Your task to perform on an android device: turn off javascript in the chrome app Image 0: 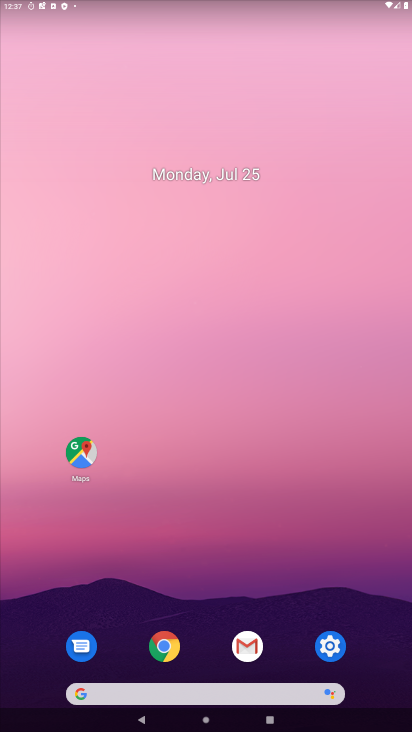
Step 0: click (168, 644)
Your task to perform on an android device: turn off javascript in the chrome app Image 1: 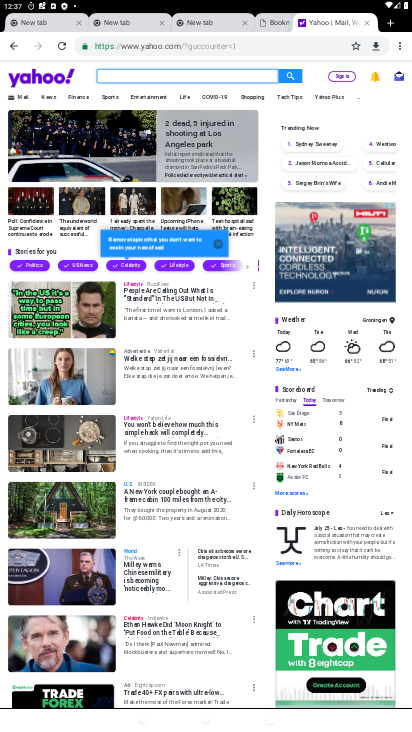
Step 1: click (395, 54)
Your task to perform on an android device: turn off javascript in the chrome app Image 2: 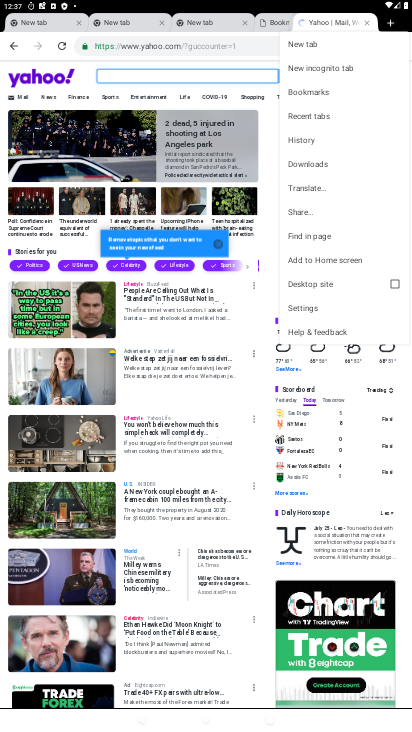
Step 2: click (300, 304)
Your task to perform on an android device: turn off javascript in the chrome app Image 3: 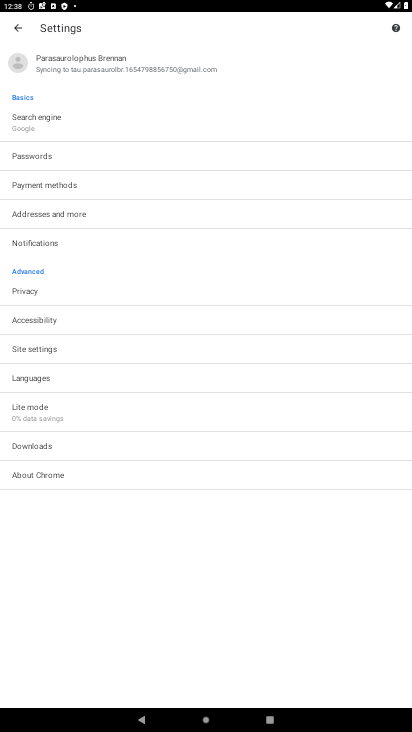
Step 3: click (47, 355)
Your task to perform on an android device: turn off javascript in the chrome app Image 4: 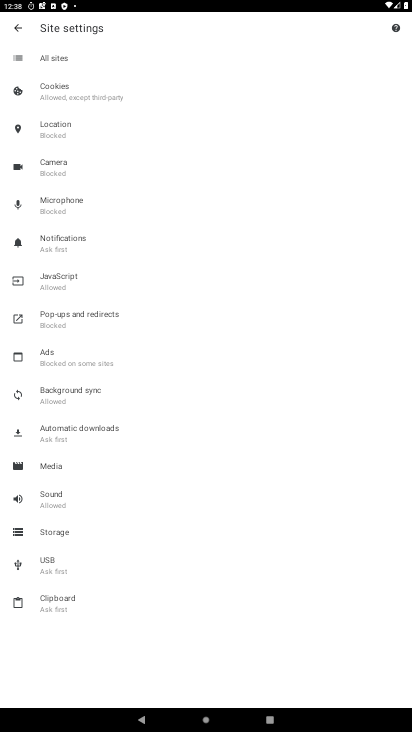
Step 4: click (66, 281)
Your task to perform on an android device: turn off javascript in the chrome app Image 5: 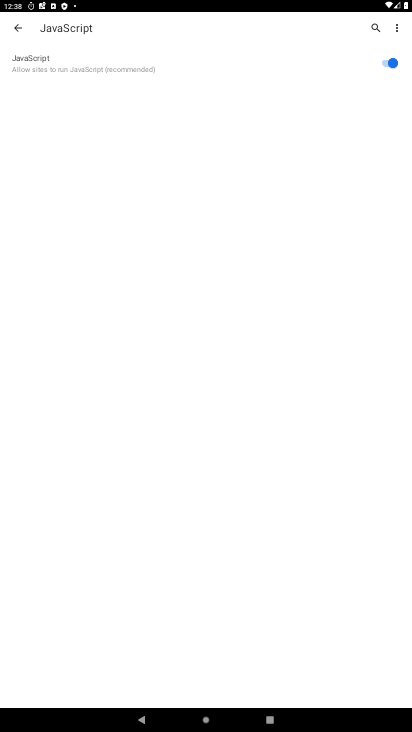
Step 5: click (377, 45)
Your task to perform on an android device: turn off javascript in the chrome app Image 6: 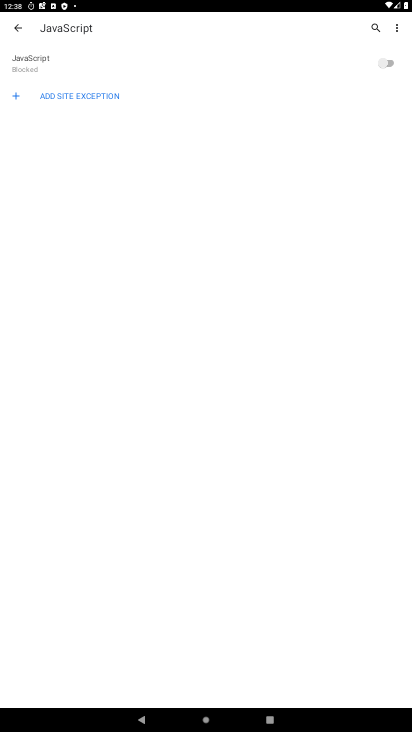
Step 6: task complete